Your task to perform on an android device: Search for "usb-c to usb-a" on ebay, select the first entry, add it to the cart, then select checkout. Image 0: 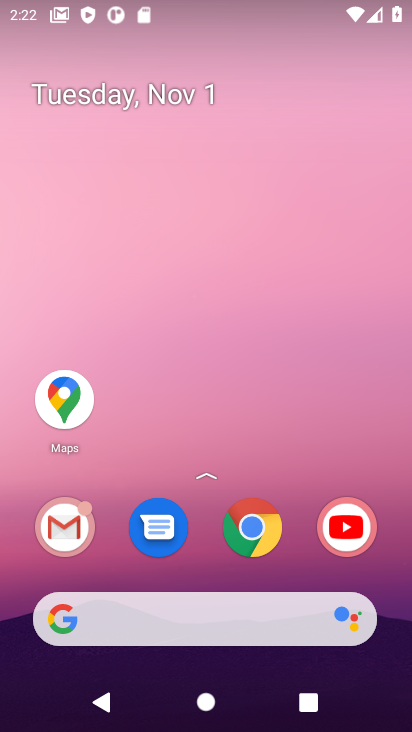
Step 0: click (168, 612)
Your task to perform on an android device: Search for "usb-c to usb-a" on ebay, select the first entry, add it to the cart, then select checkout. Image 1: 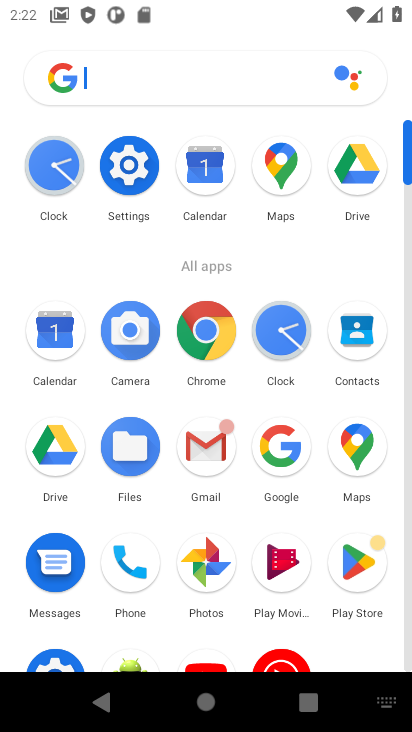
Step 1: click (283, 454)
Your task to perform on an android device: Search for "usb-c to usb-a" on ebay, select the first entry, add it to the cart, then select checkout. Image 2: 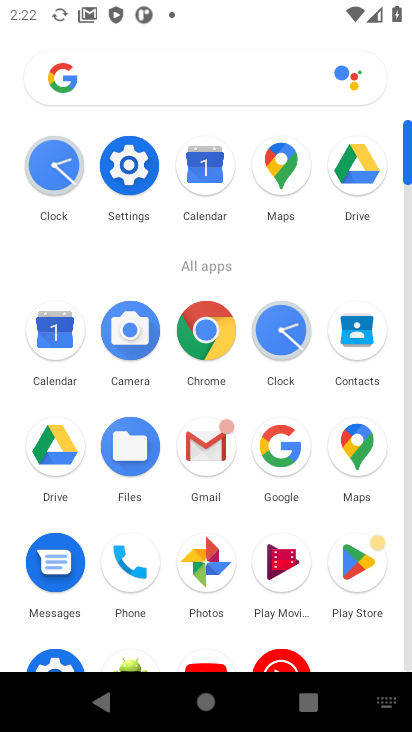
Step 2: click (283, 454)
Your task to perform on an android device: Search for "usb-c to usb-a" on ebay, select the first entry, add it to the cart, then select checkout. Image 3: 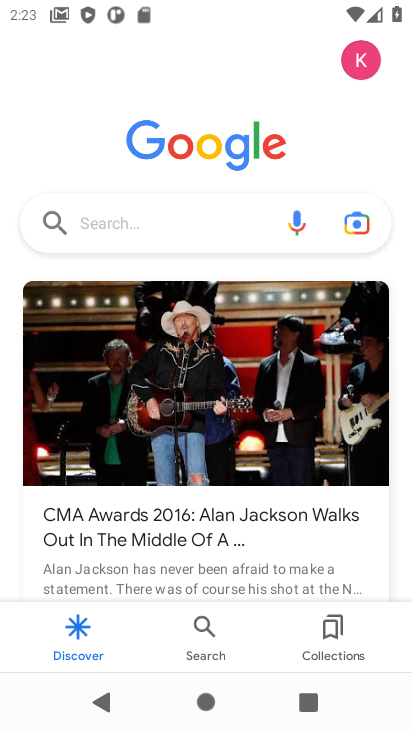
Step 3: click (207, 231)
Your task to perform on an android device: Search for "usb-c to usb-a" on ebay, select the first entry, add it to the cart, then select checkout. Image 4: 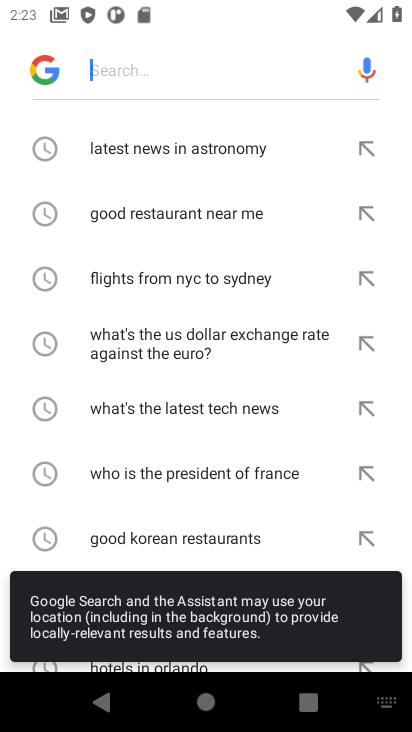
Step 4: type "ebay"
Your task to perform on an android device: Search for "usb-c to usb-a" on ebay, select the first entry, add it to the cart, then select checkout. Image 5: 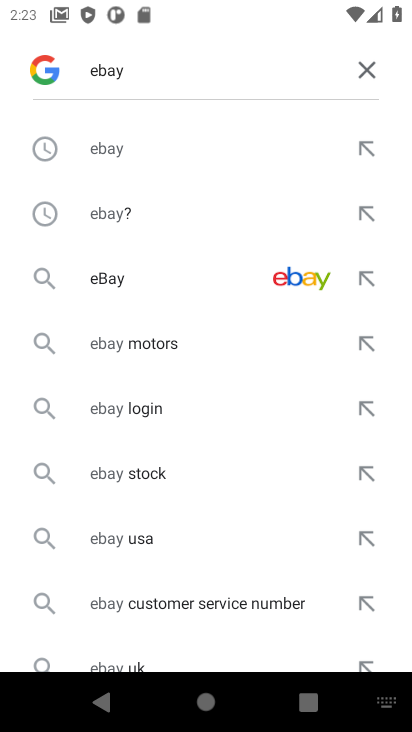
Step 5: click (207, 285)
Your task to perform on an android device: Search for "usb-c to usb-a" on ebay, select the first entry, add it to the cart, then select checkout. Image 6: 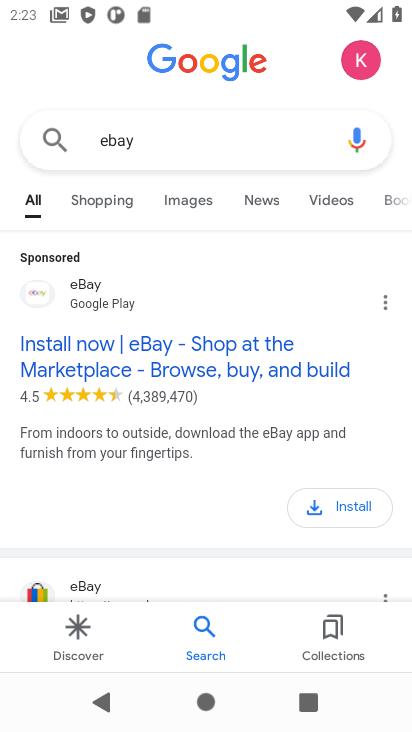
Step 6: drag from (173, 392) to (173, 224)
Your task to perform on an android device: Search for "usb-c to usb-a" on ebay, select the first entry, add it to the cart, then select checkout. Image 7: 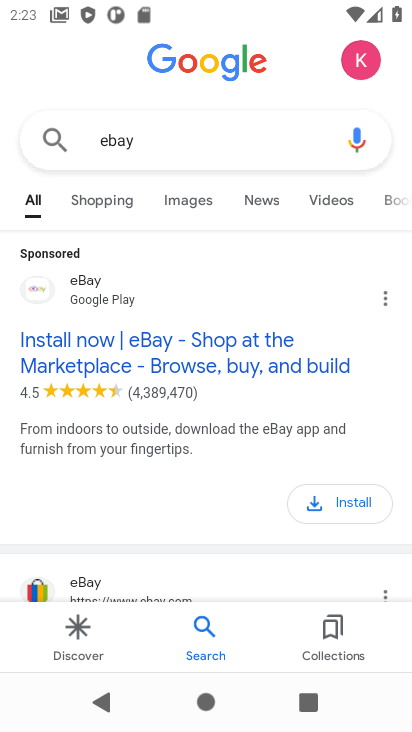
Step 7: click (172, 444)
Your task to perform on an android device: Search for "usb-c to usb-a" on ebay, select the first entry, add it to the cart, then select checkout. Image 8: 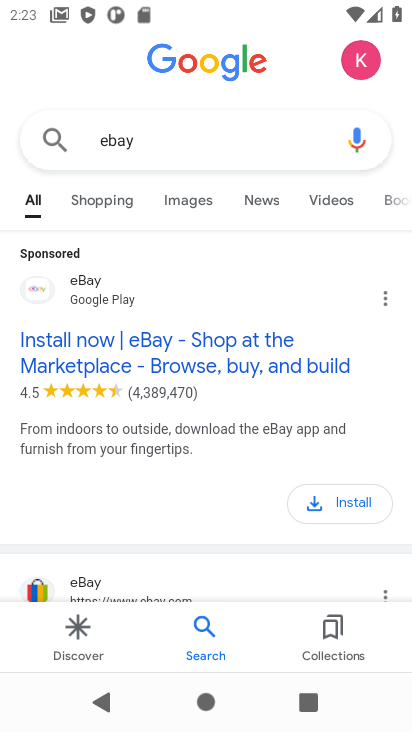
Step 8: click (86, 583)
Your task to perform on an android device: Search for "usb-c to usb-a" on ebay, select the first entry, add it to the cart, then select checkout. Image 9: 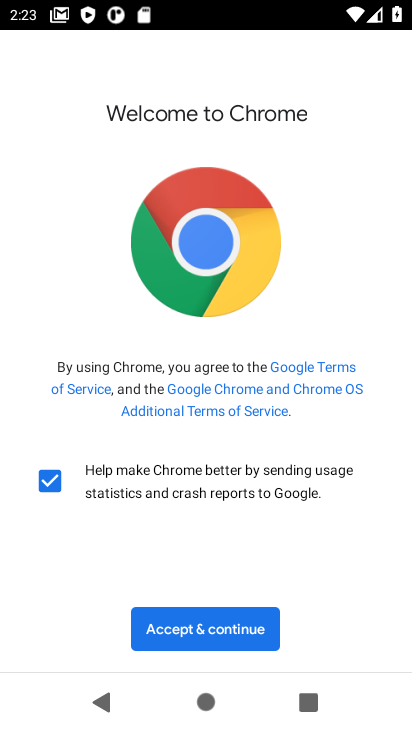
Step 9: click (184, 625)
Your task to perform on an android device: Search for "usb-c to usb-a" on ebay, select the first entry, add it to the cart, then select checkout. Image 10: 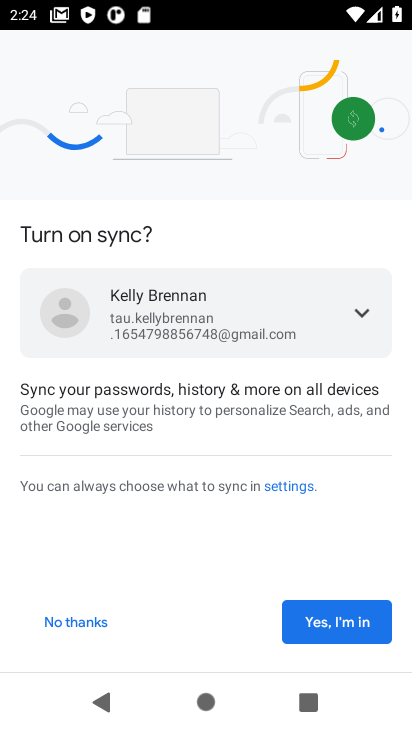
Step 10: click (348, 626)
Your task to perform on an android device: Search for "usb-c to usb-a" on ebay, select the first entry, add it to the cart, then select checkout. Image 11: 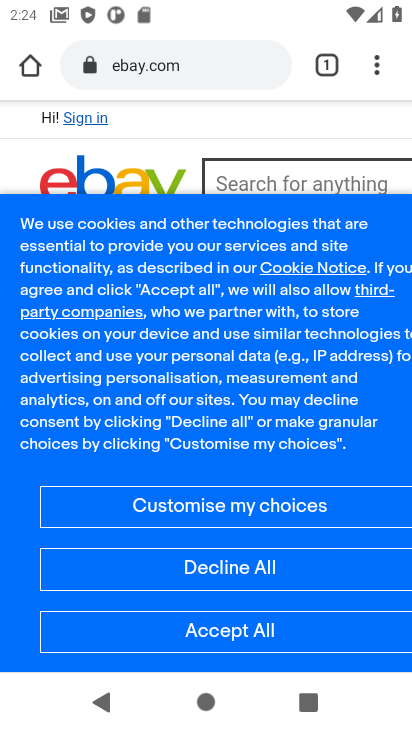
Step 11: click (236, 627)
Your task to perform on an android device: Search for "usb-c to usb-a" on ebay, select the first entry, add it to the cart, then select checkout. Image 12: 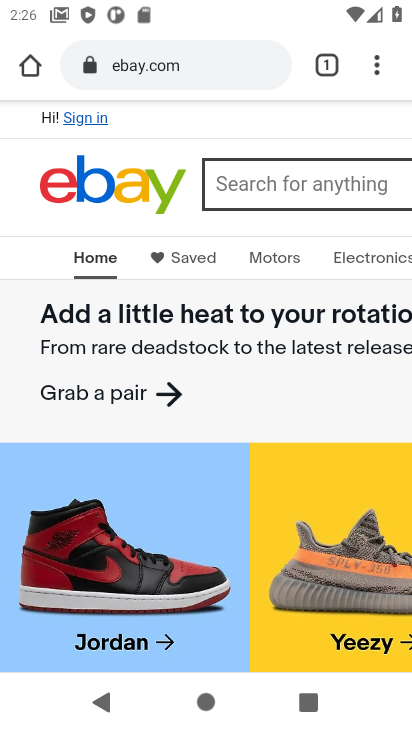
Step 12: click (290, 169)
Your task to perform on an android device: Search for "usb-c to usb-a" on ebay, select the first entry, add it to the cart, then select checkout. Image 13: 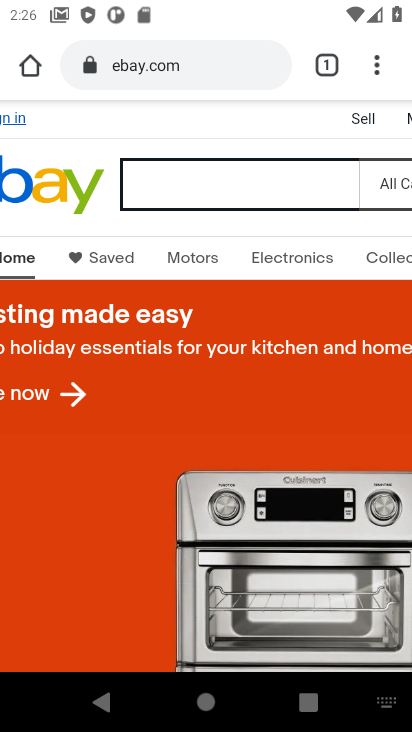
Step 13: type "usb-c to usb-a"
Your task to perform on an android device: Search for "usb-c to usb-a" on ebay, select the first entry, add it to the cart, then select checkout. Image 14: 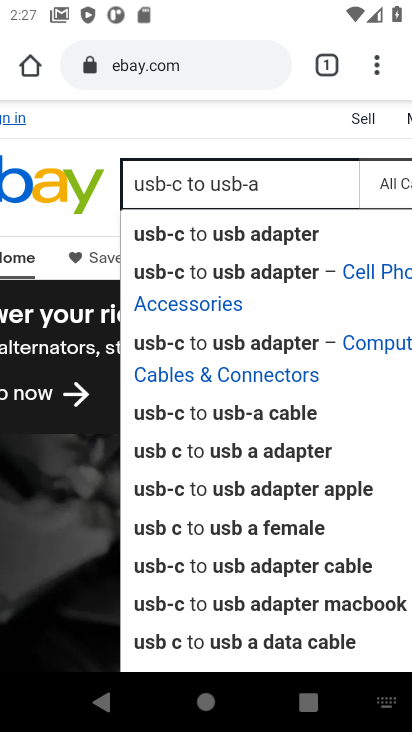
Step 14: click (298, 232)
Your task to perform on an android device: Search for "usb-c to usb-a" on ebay, select the first entry, add it to the cart, then select checkout. Image 15: 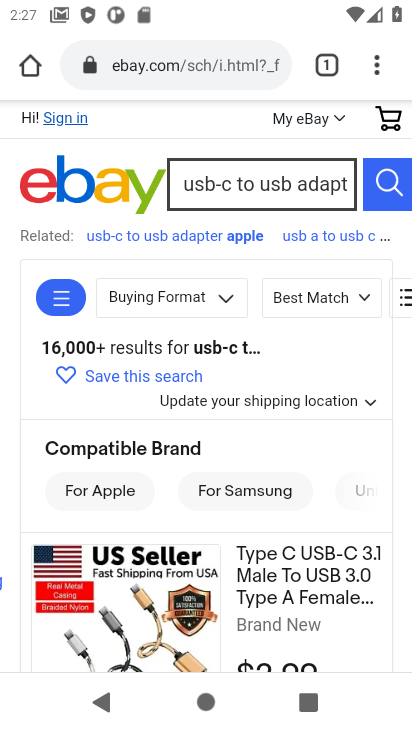
Step 15: click (324, 598)
Your task to perform on an android device: Search for "usb-c to usb-a" on ebay, select the first entry, add it to the cart, then select checkout. Image 16: 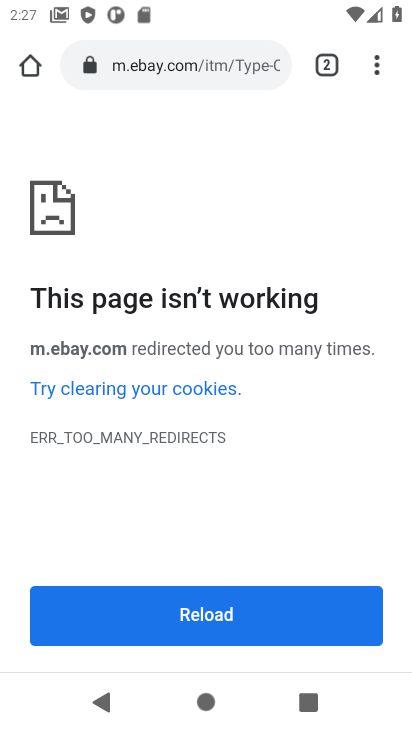
Step 16: task complete